Your task to perform on an android device: star an email in the gmail app Image 0: 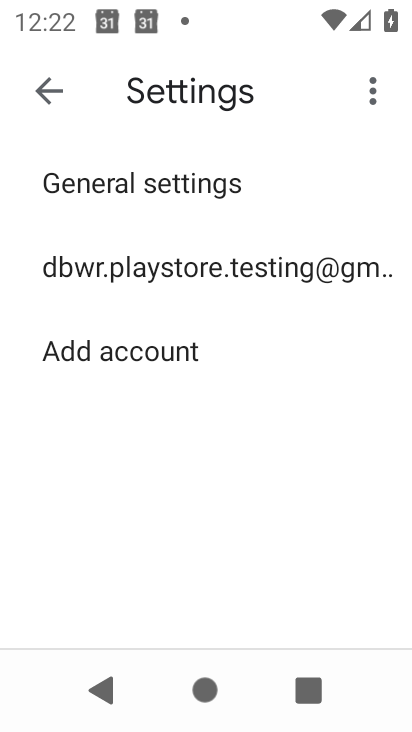
Step 0: press home button
Your task to perform on an android device: star an email in the gmail app Image 1: 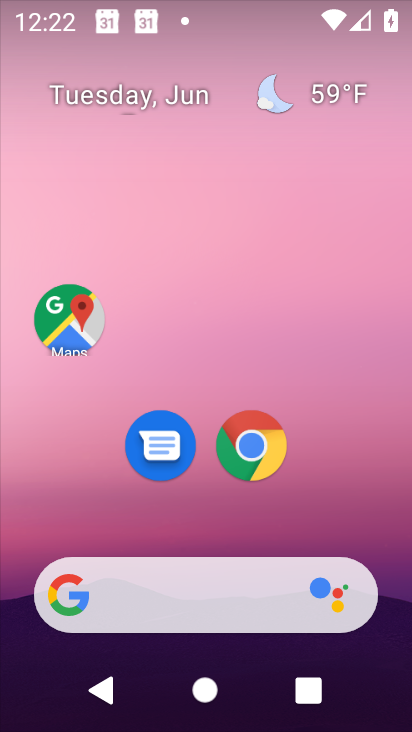
Step 1: drag from (145, 666) to (276, 64)
Your task to perform on an android device: star an email in the gmail app Image 2: 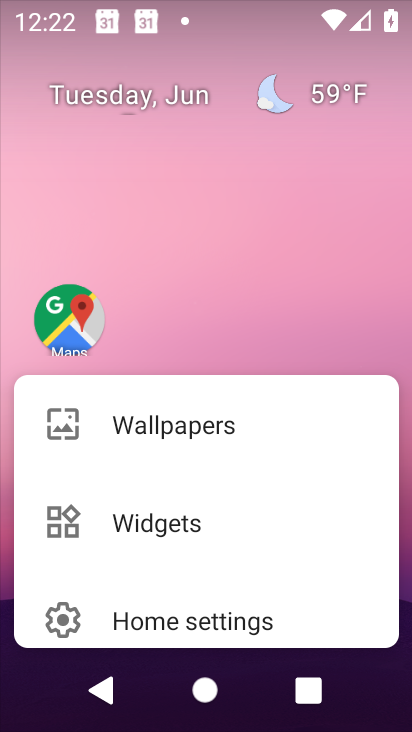
Step 2: click (198, 337)
Your task to perform on an android device: star an email in the gmail app Image 3: 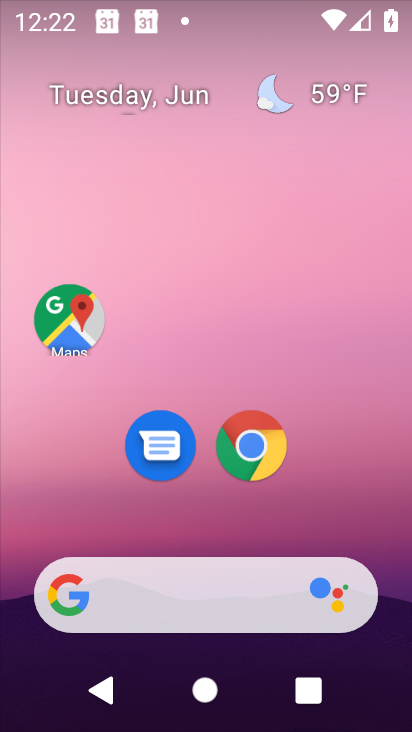
Step 3: drag from (201, 522) to (174, 66)
Your task to perform on an android device: star an email in the gmail app Image 4: 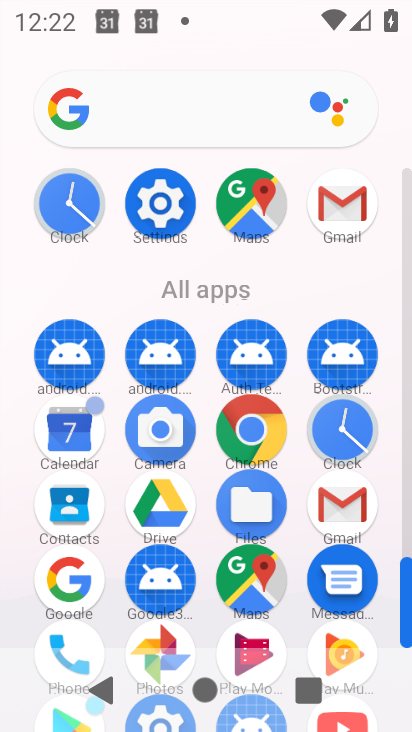
Step 4: click (332, 212)
Your task to perform on an android device: star an email in the gmail app Image 5: 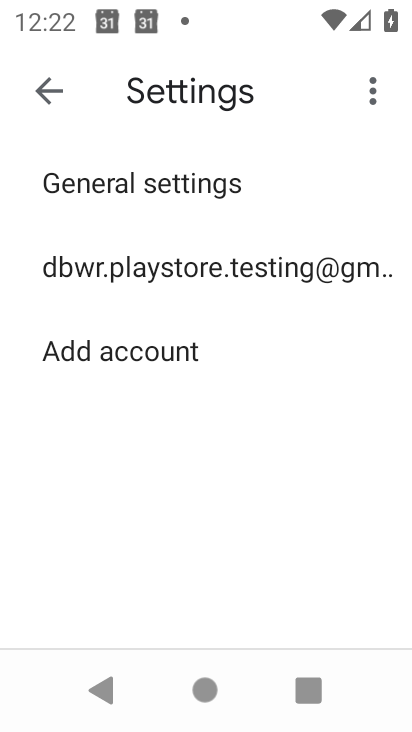
Step 5: click (54, 88)
Your task to perform on an android device: star an email in the gmail app Image 6: 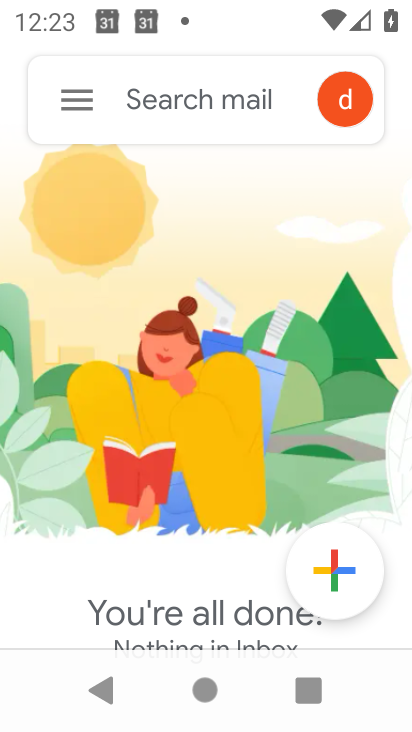
Step 6: task complete